Your task to perform on an android device: delete browsing data in the chrome app Image 0: 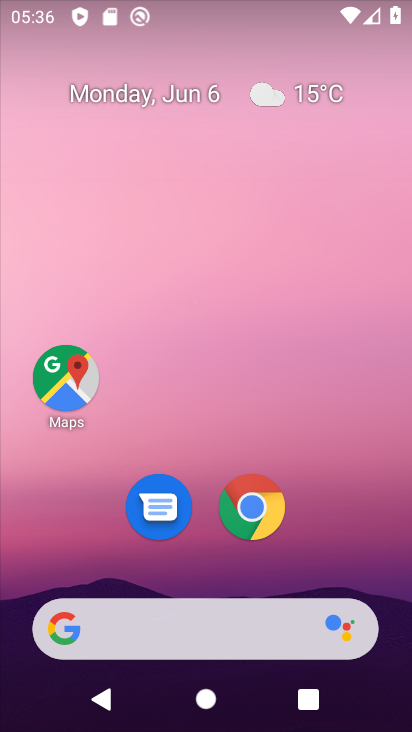
Step 0: click (256, 522)
Your task to perform on an android device: delete browsing data in the chrome app Image 1: 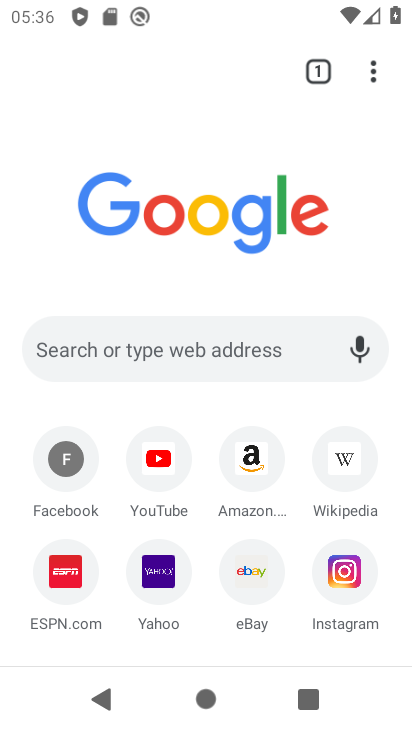
Step 1: click (367, 78)
Your task to perform on an android device: delete browsing data in the chrome app Image 2: 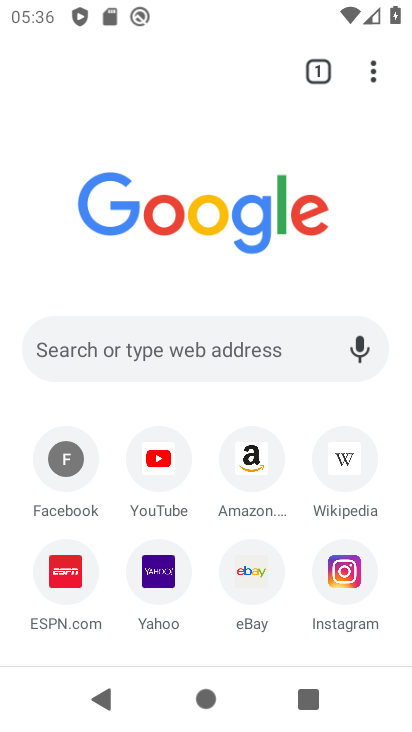
Step 2: click (376, 71)
Your task to perform on an android device: delete browsing data in the chrome app Image 3: 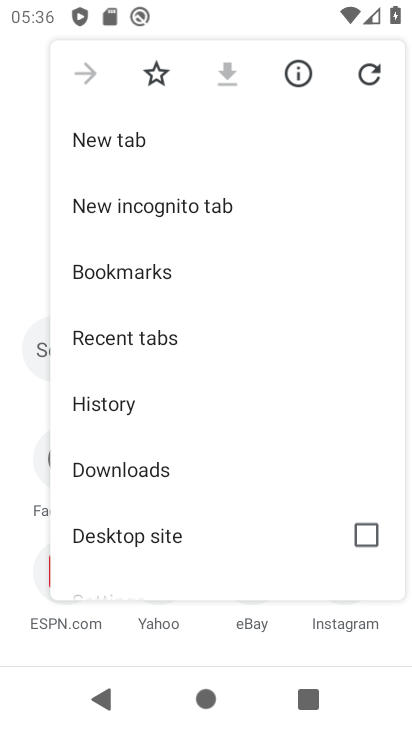
Step 3: drag from (135, 500) to (111, 64)
Your task to perform on an android device: delete browsing data in the chrome app Image 4: 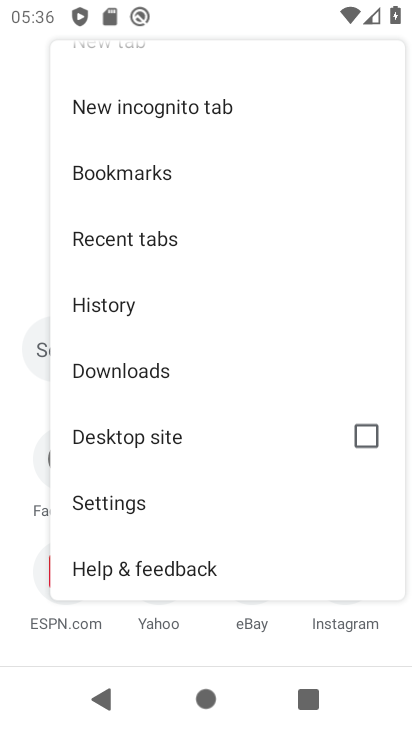
Step 4: click (89, 309)
Your task to perform on an android device: delete browsing data in the chrome app Image 5: 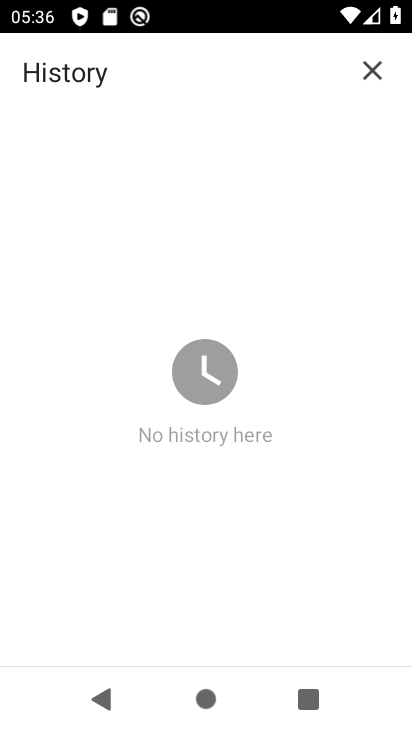
Step 5: task complete